Your task to perform on an android device: Go to Yahoo.com Image 0: 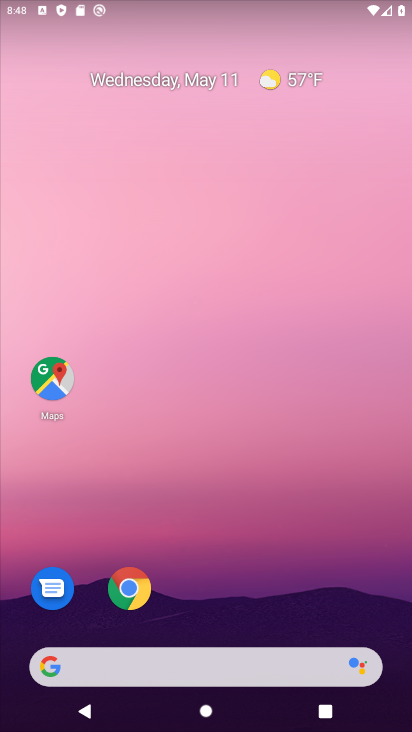
Step 0: click (140, 662)
Your task to perform on an android device: Go to Yahoo.com Image 1: 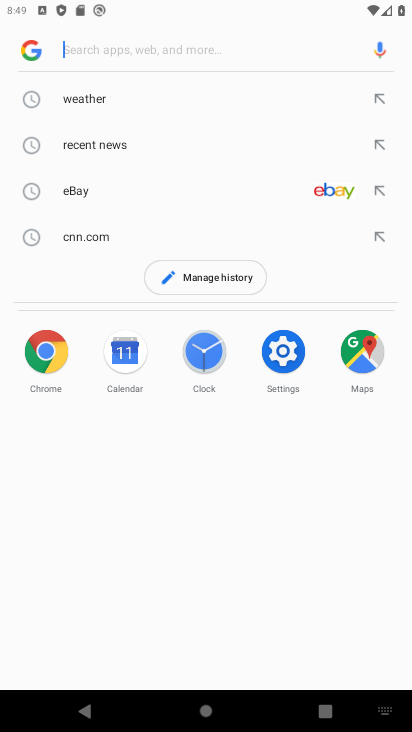
Step 1: type "yahoo.com"
Your task to perform on an android device: Go to Yahoo.com Image 2: 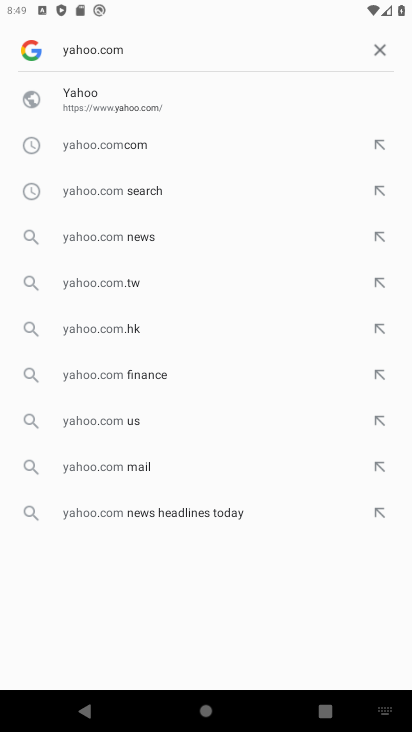
Step 2: click (175, 94)
Your task to perform on an android device: Go to Yahoo.com Image 3: 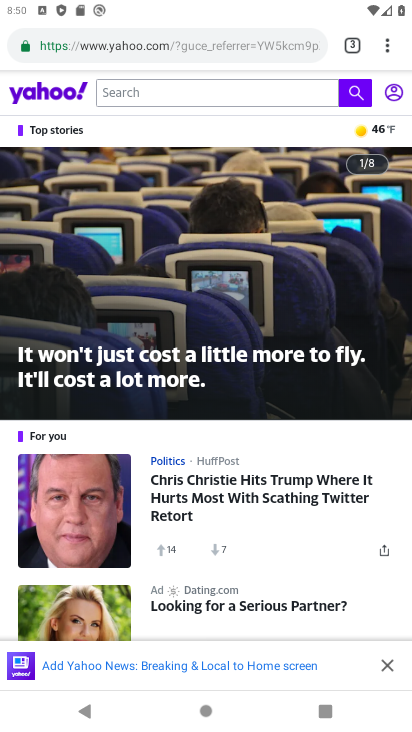
Step 3: task complete